Your task to perform on an android device: change the upload size in google photos Image 0: 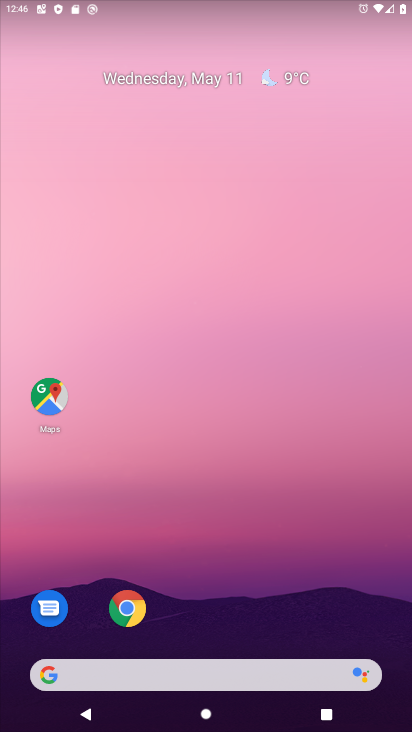
Step 0: drag from (139, 367) to (112, 178)
Your task to perform on an android device: change the upload size in google photos Image 1: 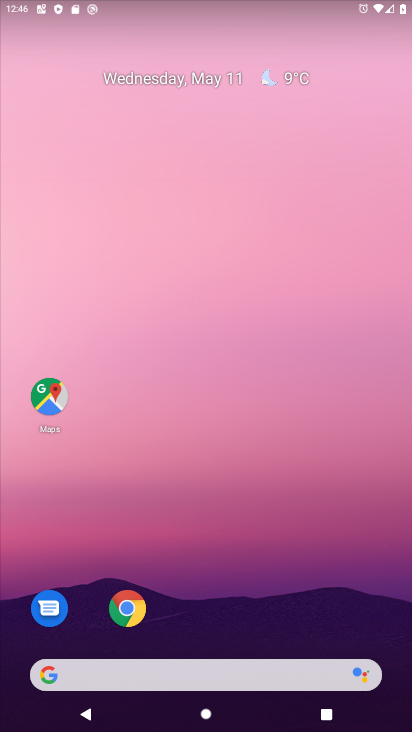
Step 1: drag from (229, 533) to (226, 70)
Your task to perform on an android device: change the upload size in google photos Image 2: 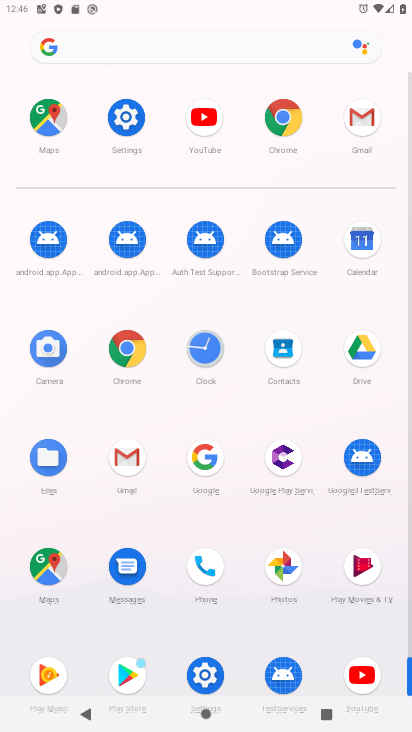
Step 2: click (291, 588)
Your task to perform on an android device: change the upload size in google photos Image 3: 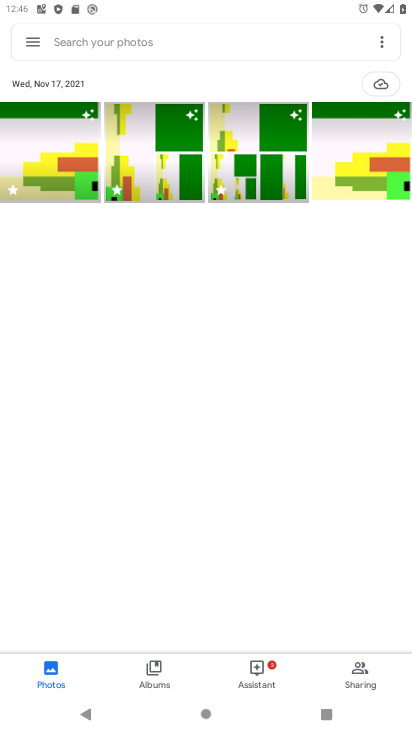
Step 3: click (37, 40)
Your task to perform on an android device: change the upload size in google photos Image 4: 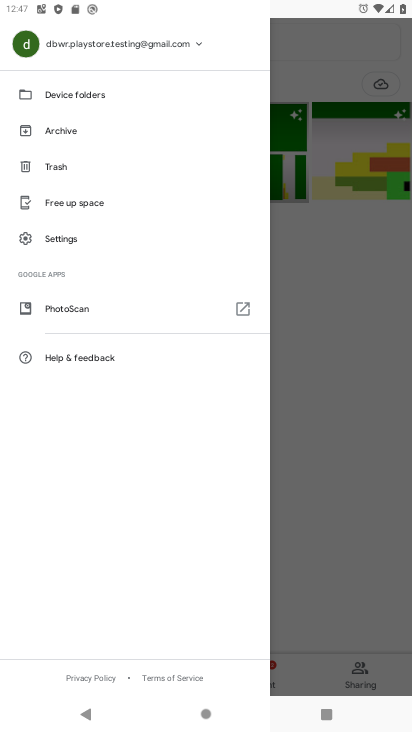
Step 4: click (37, 40)
Your task to perform on an android device: change the upload size in google photos Image 5: 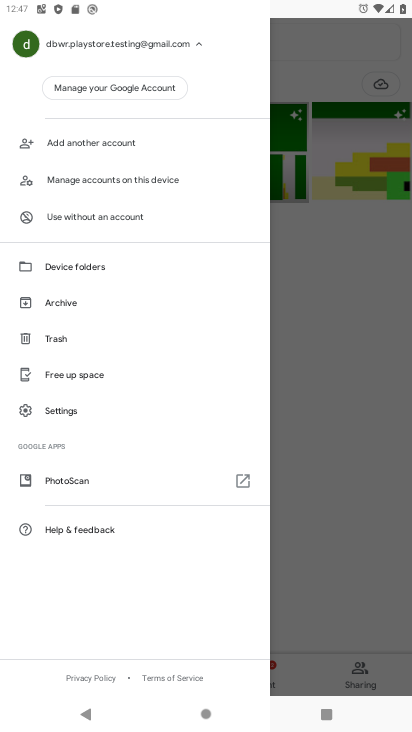
Step 5: click (72, 409)
Your task to perform on an android device: change the upload size in google photos Image 6: 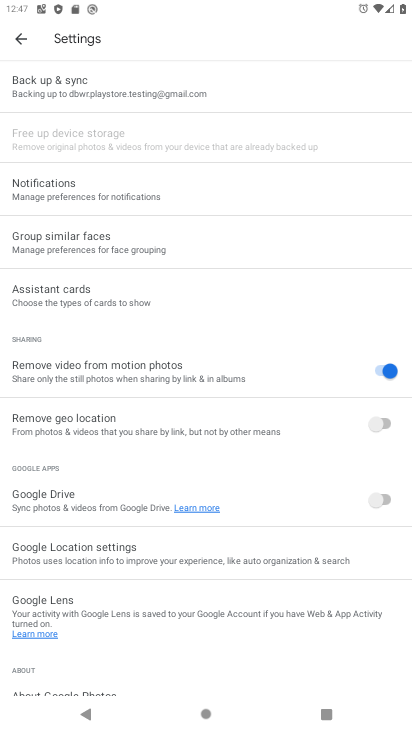
Step 6: click (140, 99)
Your task to perform on an android device: change the upload size in google photos Image 7: 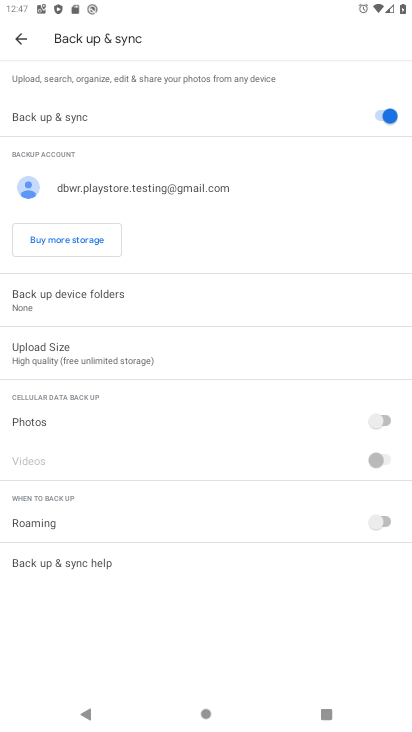
Step 7: click (117, 350)
Your task to perform on an android device: change the upload size in google photos Image 8: 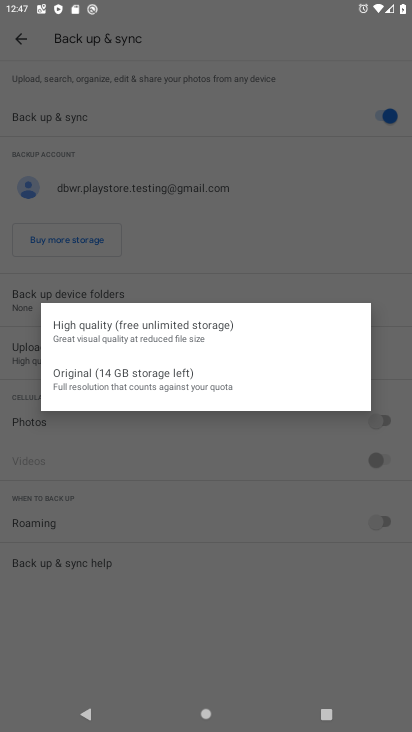
Step 8: click (128, 375)
Your task to perform on an android device: change the upload size in google photos Image 9: 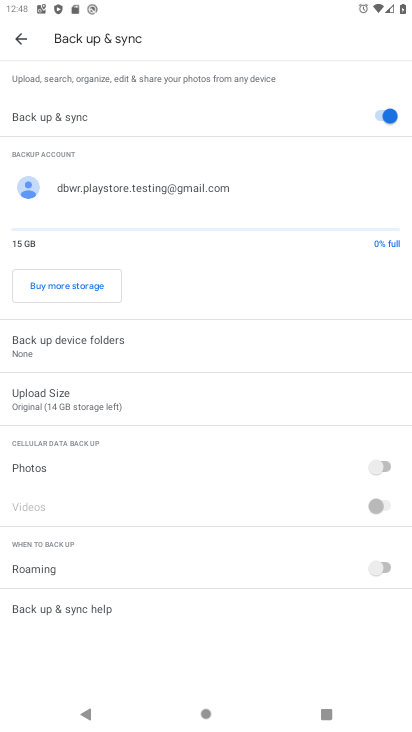
Step 9: task complete